Your task to perform on an android device: turn on javascript in the chrome app Image 0: 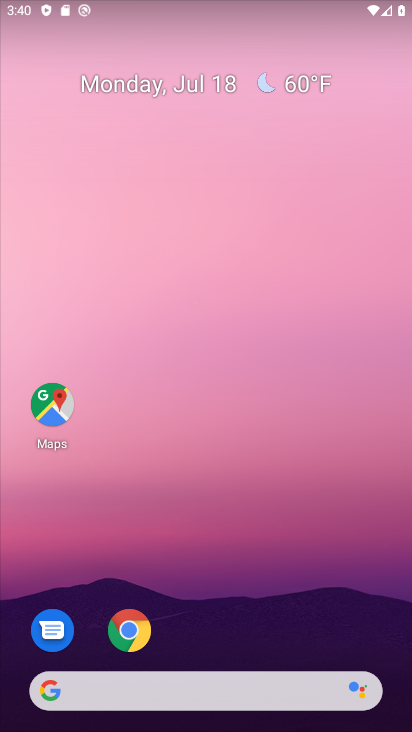
Step 0: click (128, 637)
Your task to perform on an android device: turn on javascript in the chrome app Image 1: 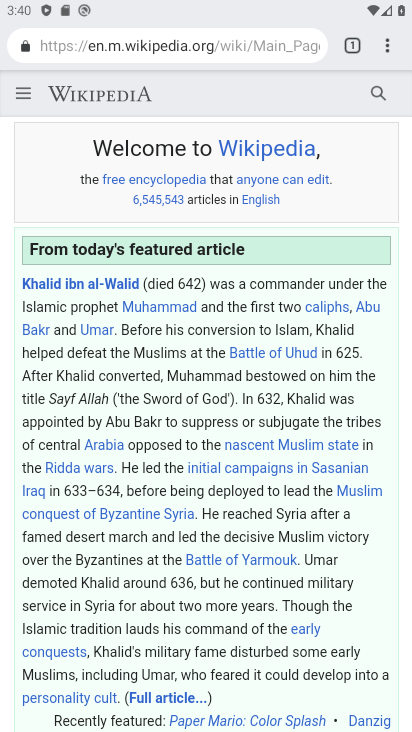
Step 1: click (387, 53)
Your task to perform on an android device: turn on javascript in the chrome app Image 2: 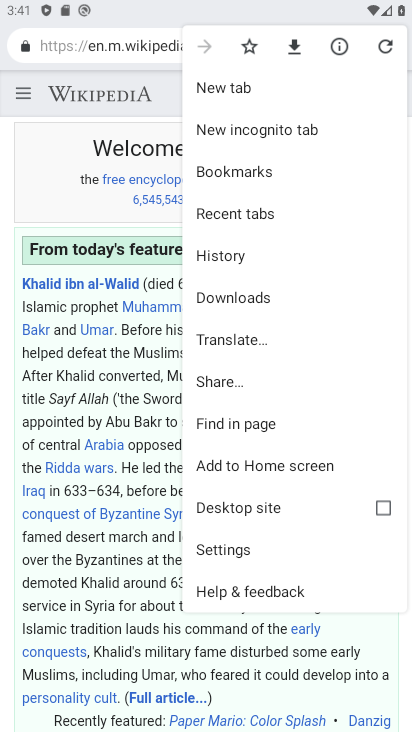
Step 2: click (289, 547)
Your task to perform on an android device: turn on javascript in the chrome app Image 3: 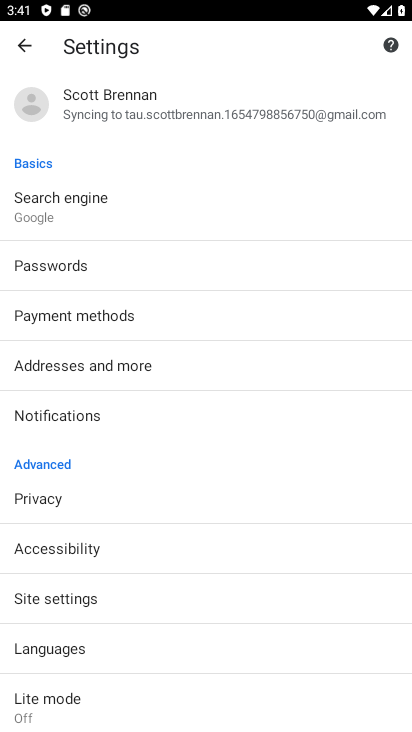
Step 3: click (131, 588)
Your task to perform on an android device: turn on javascript in the chrome app Image 4: 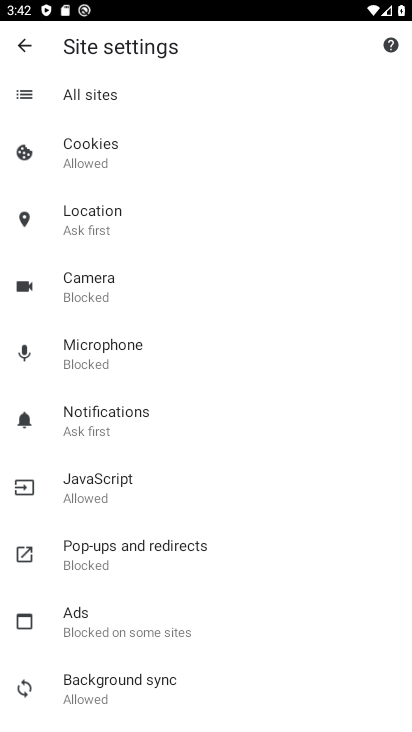
Step 4: click (123, 483)
Your task to perform on an android device: turn on javascript in the chrome app Image 5: 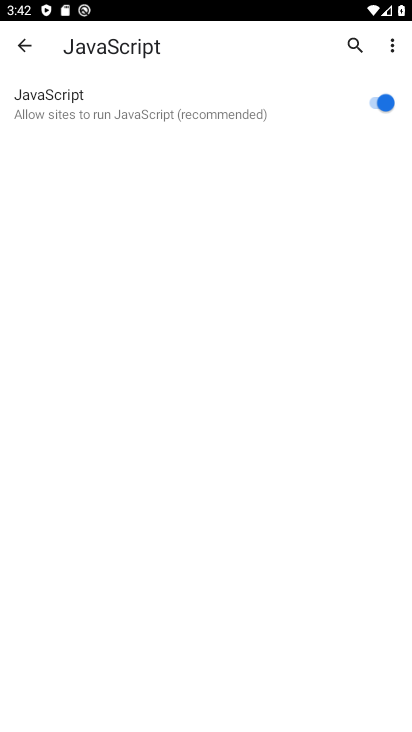
Step 5: task complete